Your task to perform on an android device: toggle wifi Image 0: 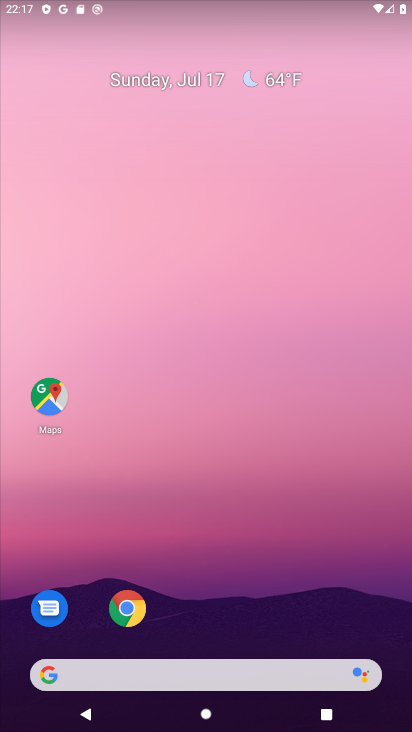
Step 0: drag from (217, 627) to (204, 238)
Your task to perform on an android device: toggle wifi Image 1: 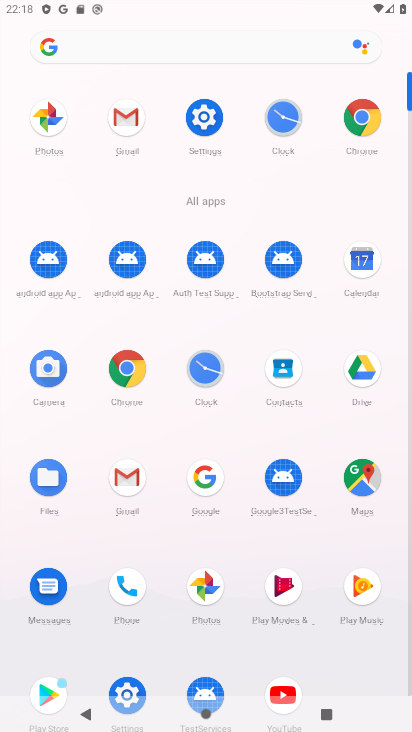
Step 1: click (208, 118)
Your task to perform on an android device: toggle wifi Image 2: 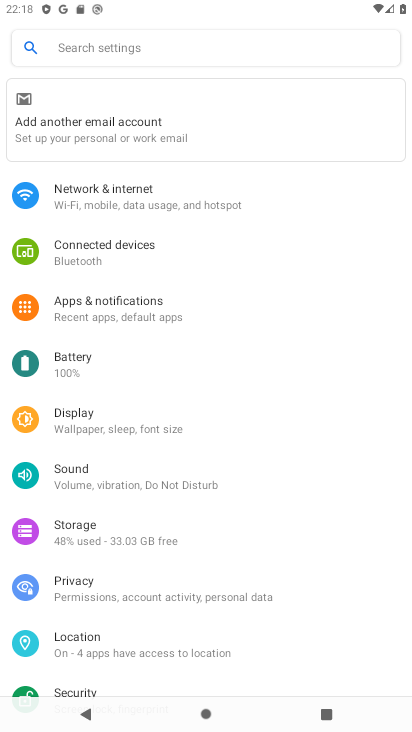
Step 2: click (174, 206)
Your task to perform on an android device: toggle wifi Image 3: 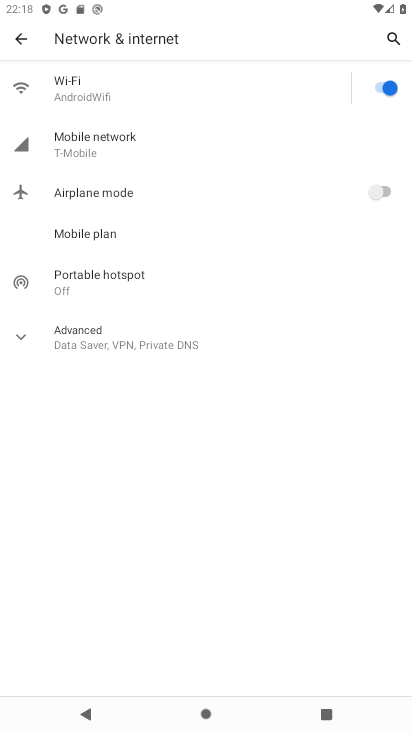
Step 3: click (378, 80)
Your task to perform on an android device: toggle wifi Image 4: 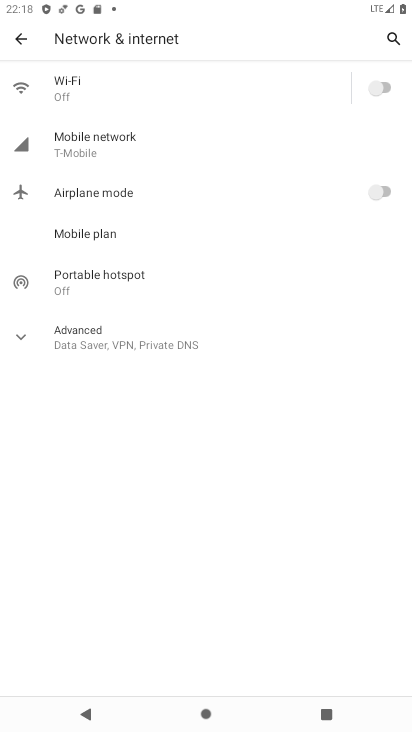
Step 4: task complete